Your task to perform on an android device: open the mobile data screen to see how much data has been used Image 0: 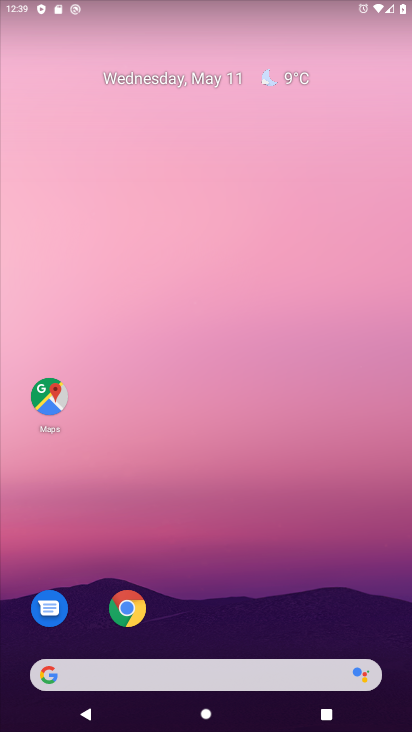
Step 0: drag from (252, 568) to (224, 305)
Your task to perform on an android device: open the mobile data screen to see how much data has been used Image 1: 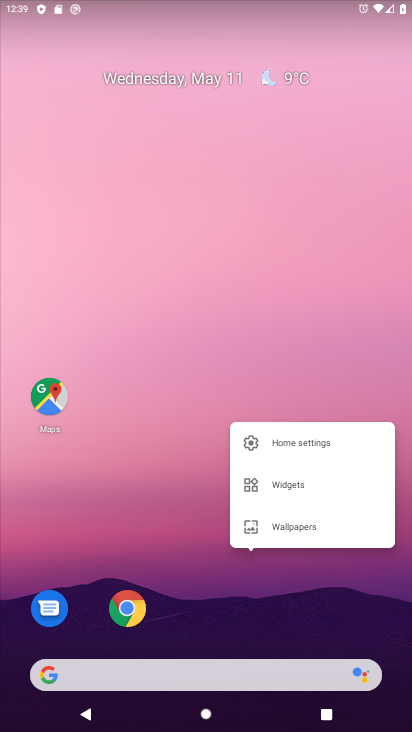
Step 1: click (248, 358)
Your task to perform on an android device: open the mobile data screen to see how much data has been used Image 2: 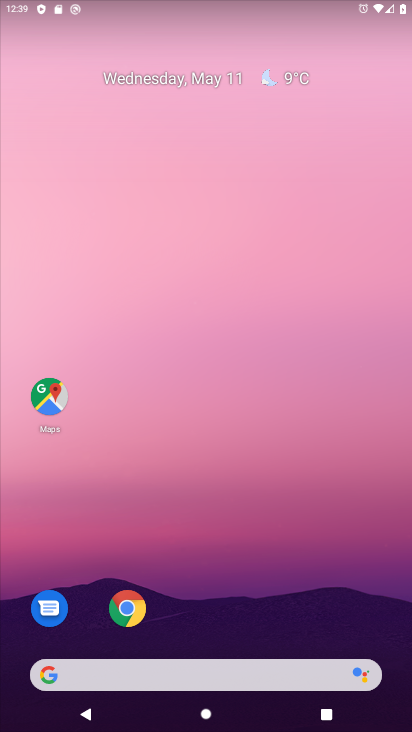
Step 2: drag from (262, 701) to (237, 278)
Your task to perform on an android device: open the mobile data screen to see how much data has been used Image 3: 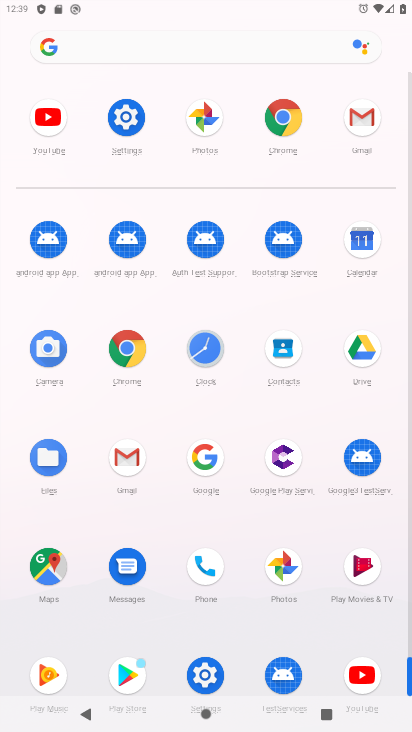
Step 3: click (127, 118)
Your task to perform on an android device: open the mobile data screen to see how much data has been used Image 4: 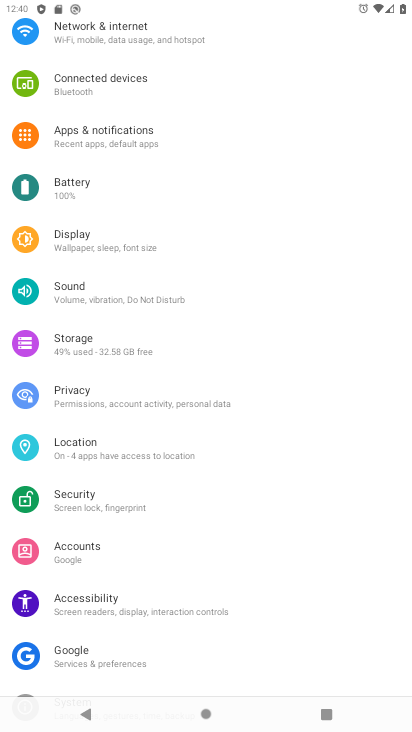
Step 4: drag from (281, 514) to (273, 331)
Your task to perform on an android device: open the mobile data screen to see how much data has been used Image 5: 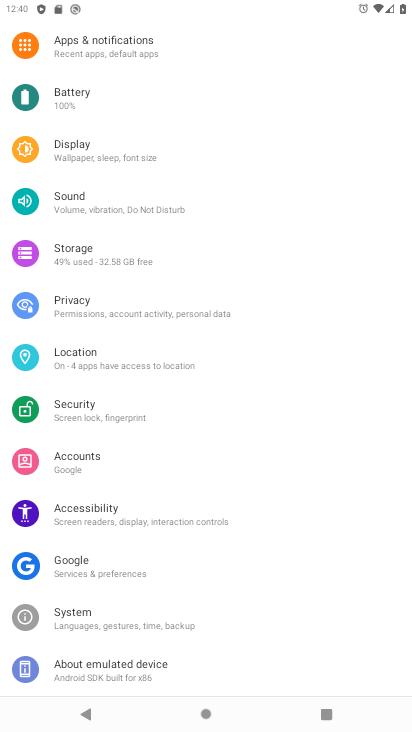
Step 5: drag from (290, 65) to (249, 485)
Your task to perform on an android device: open the mobile data screen to see how much data has been used Image 6: 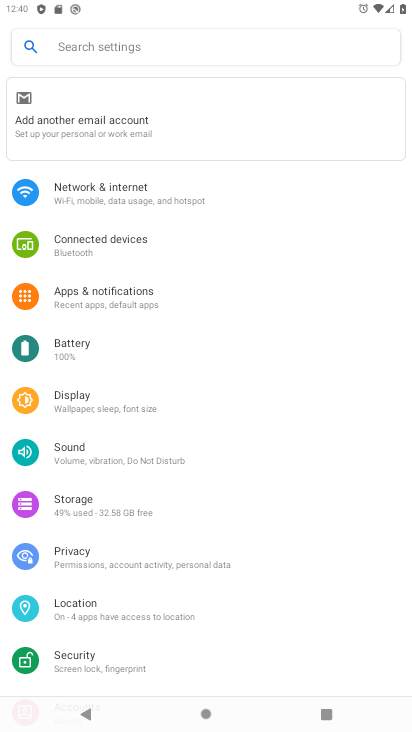
Step 6: click (273, 193)
Your task to perform on an android device: open the mobile data screen to see how much data has been used Image 7: 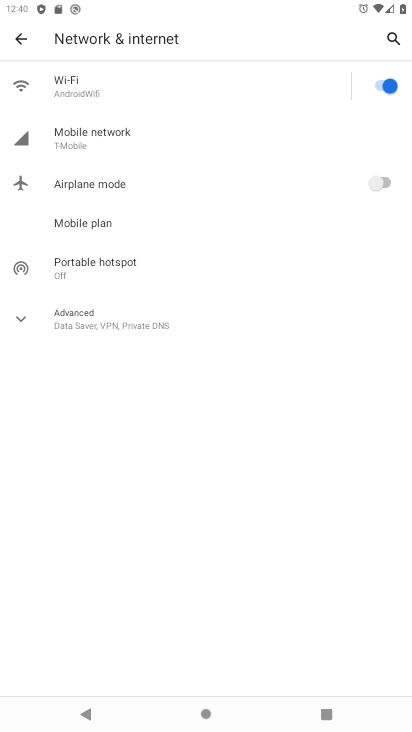
Step 7: click (132, 137)
Your task to perform on an android device: open the mobile data screen to see how much data has been used Image 8: 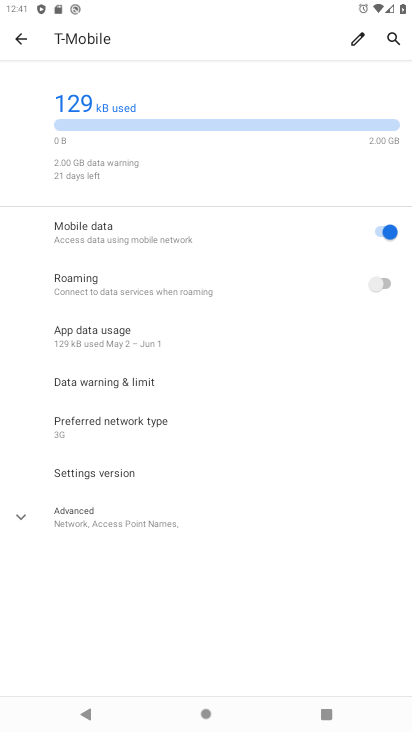
Step 8: task complete